Your task to perform on an android device: Open privacy settings Image 0: 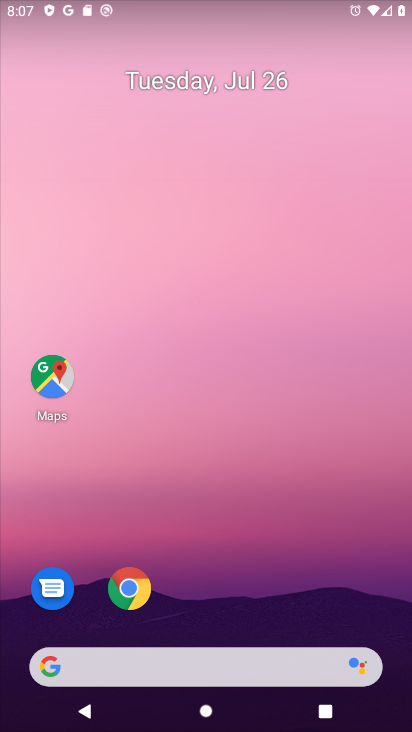
Step 0: drag from (207, 650) to (204, 159)
Your task to perform on an android device: Open privacy settings Image 1: 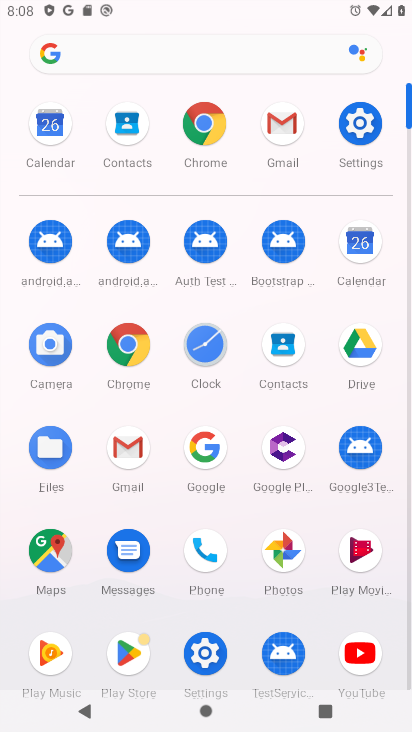
Step 1: click (359, 157)
Your task to perform on an android device: Open privacy settings Image 2: 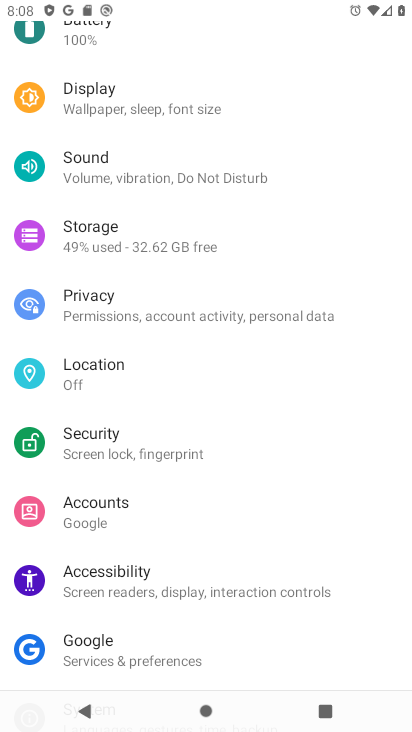
Step 2: click (153, 318)
Your task to perform on an android device: Open privacy settings Image 3: 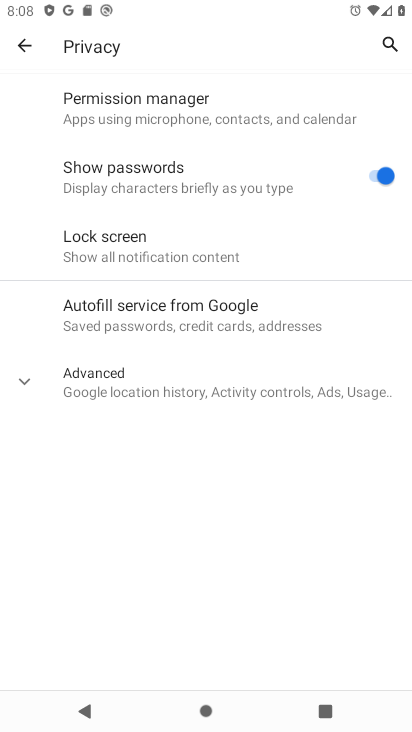
Step 3: task complete